Your task to perform on an android device: Go to privacy settings Image 0: 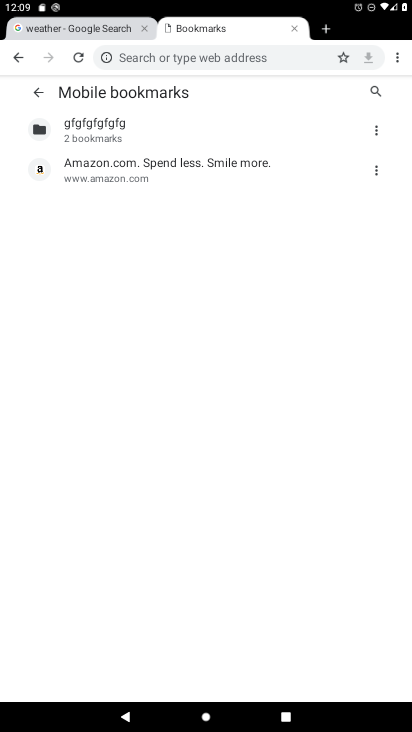
Step 0: press home button
Your task to perform on an android device: Go to privacy settings Image 1: 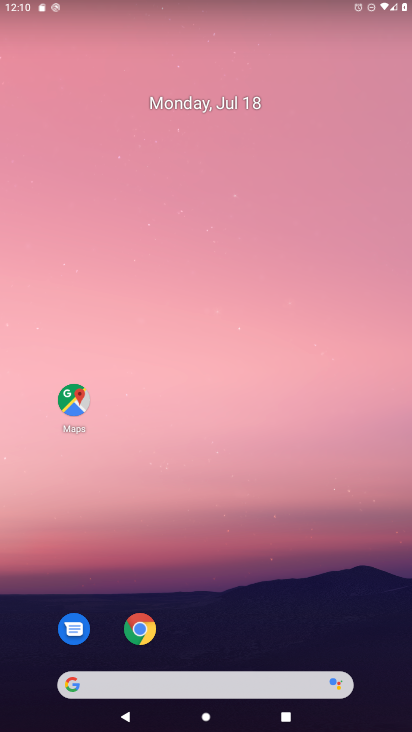
Step 1: drag from (183, 691) to (223, 117)
Your task to perform on an android device: Go to privacy settings Image 2: 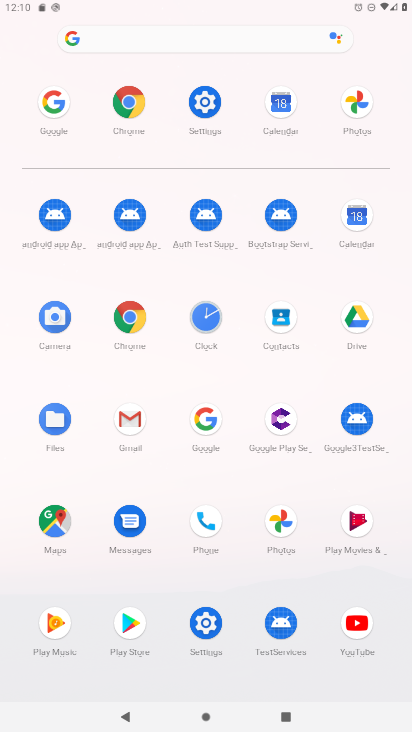
Step 2: click (205, 103)
Your task to perform on an android device: Go to privacy settings Image 3: 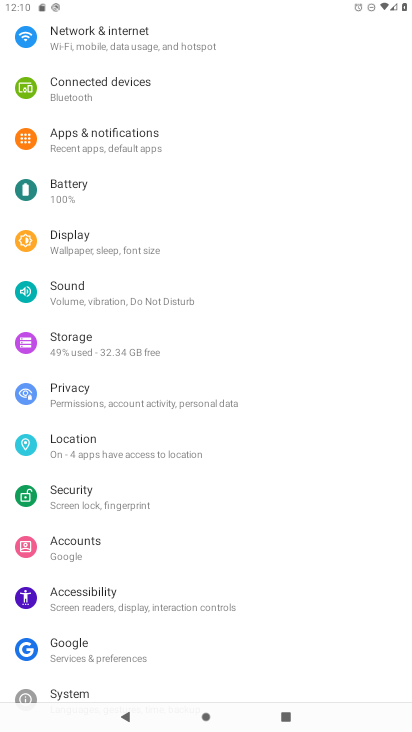
Step 3: click (126, 405)
Your task to perform on an android device: Go to privacy settings Image 4: 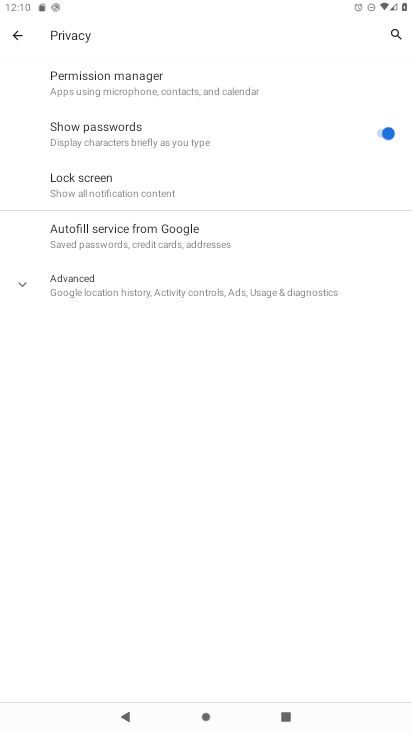
Step 4: task complete